Your task to perform on an android device: Open calendar and show me the third week of next month Image 0: 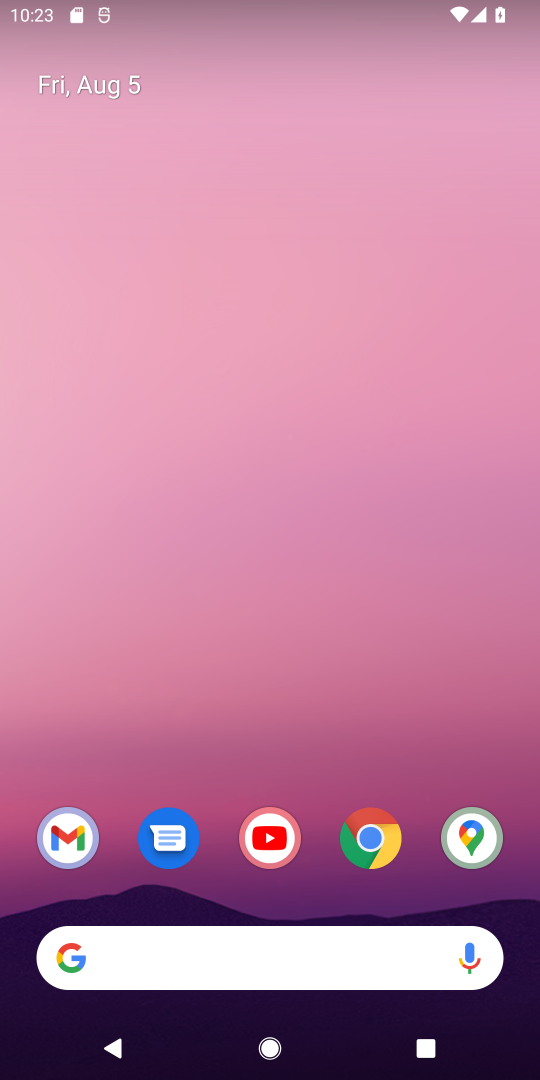
Step 0: drag from (222, 769) to (248, 232)
Your task to perform on an android device: Open calendar and show me the third week of next month Image 1: 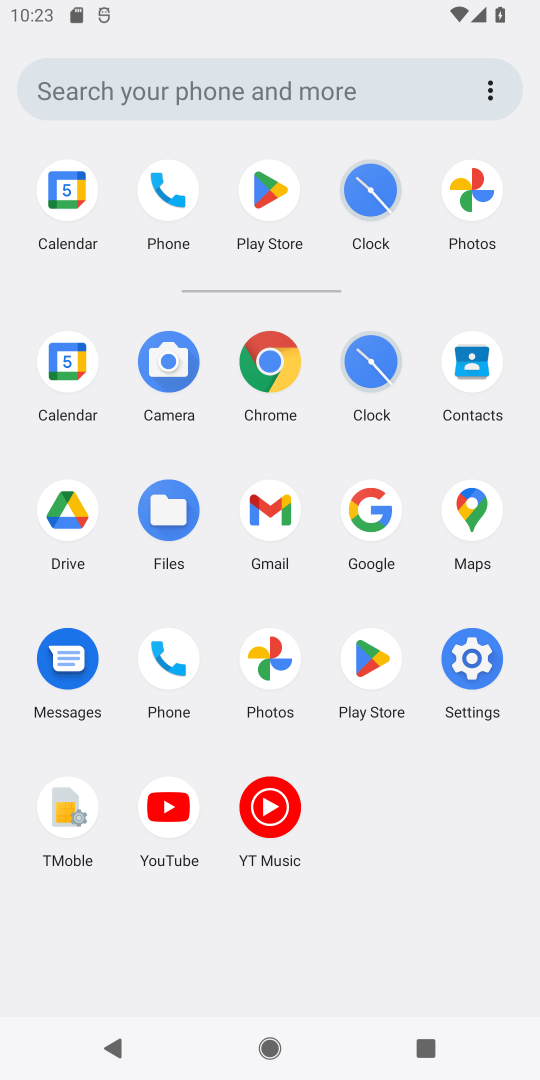
Step 1: click (66, 204)
Your task to perform on an android device: Open calendar and show me the third week of next month Image 2: 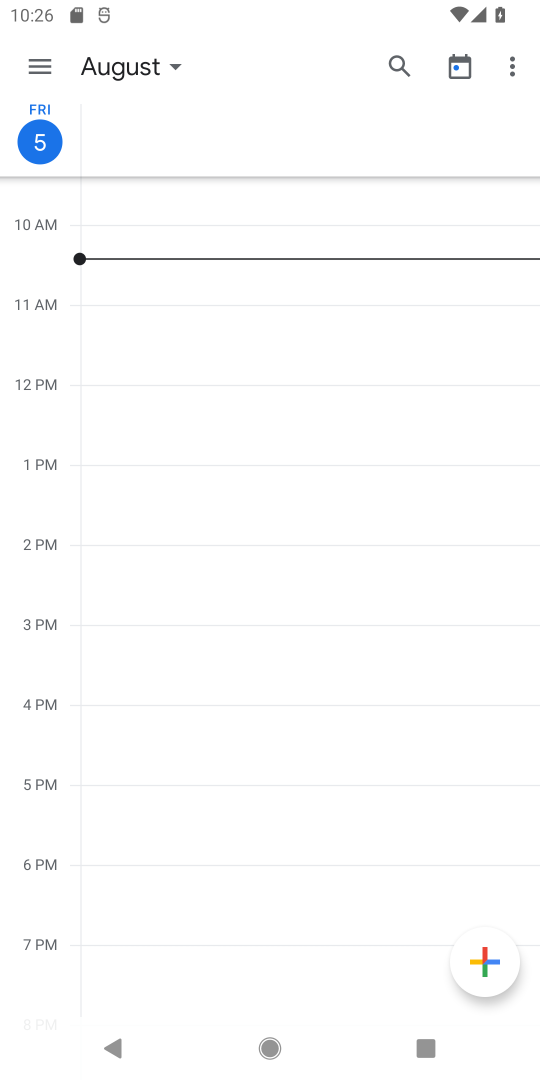
Step 2: click (38, 70)
Your task to perform on an android device: Open calendar and show me the third week of next month Image 3: 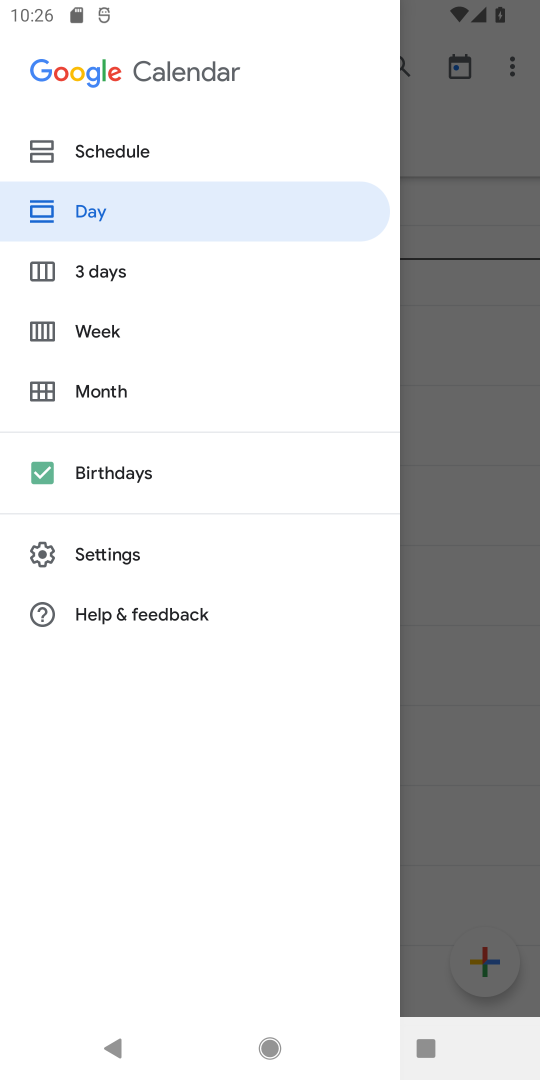
Step 3: click (101, 337)
Your task to perform on an android device: Open calendar and show me the third week of next month Image 4: 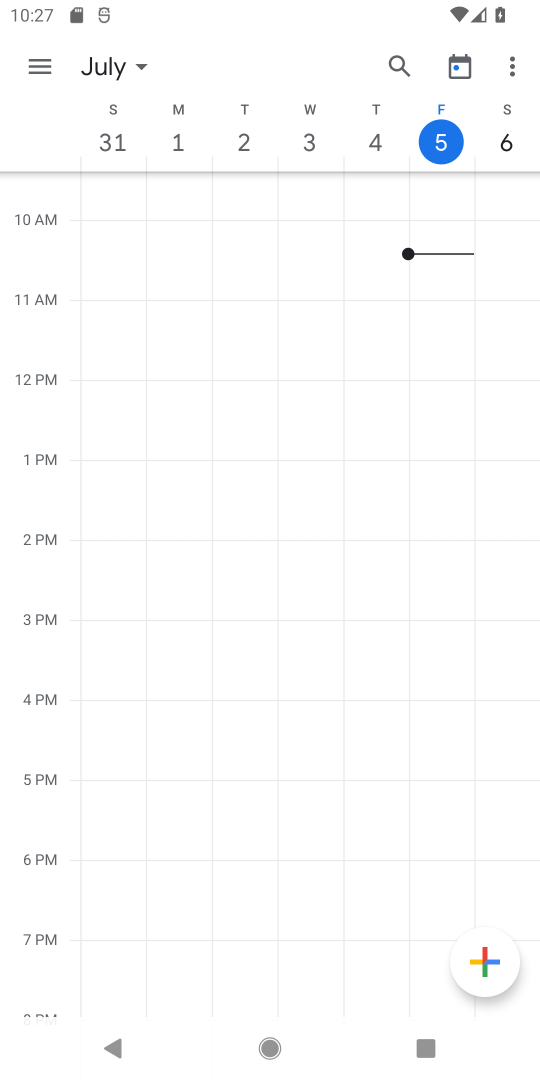
Step 4: task complete